Your task to perform on an android device: Go to Amazon Image 0: 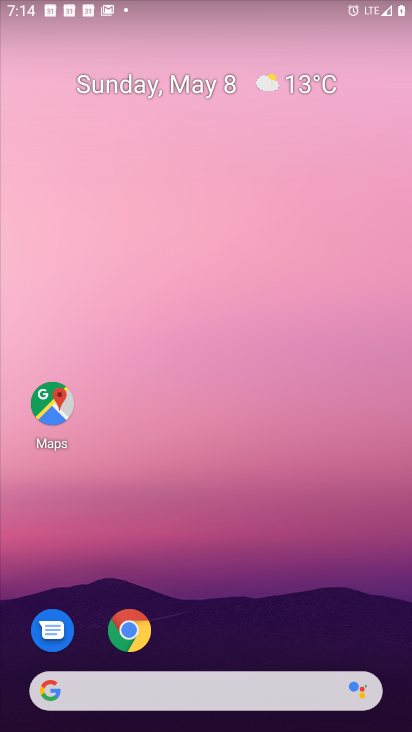
Step 0: click (132, 630)
Your task to perform on an android device: Go to Amazon Image 1: 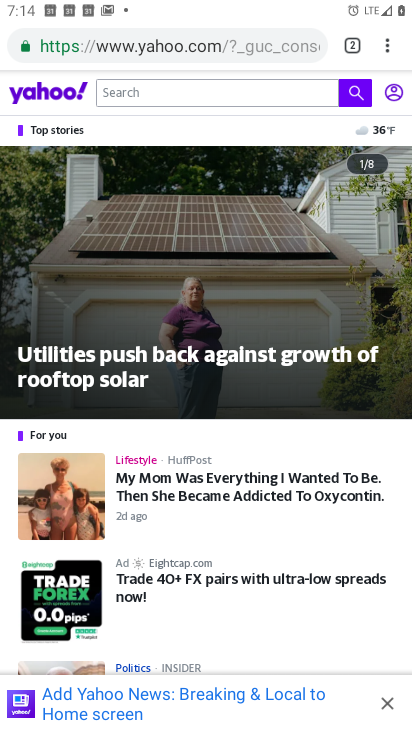
Step 1: click (390, 44)
Your task to perform on an android device: Go to Amazon Image 2: 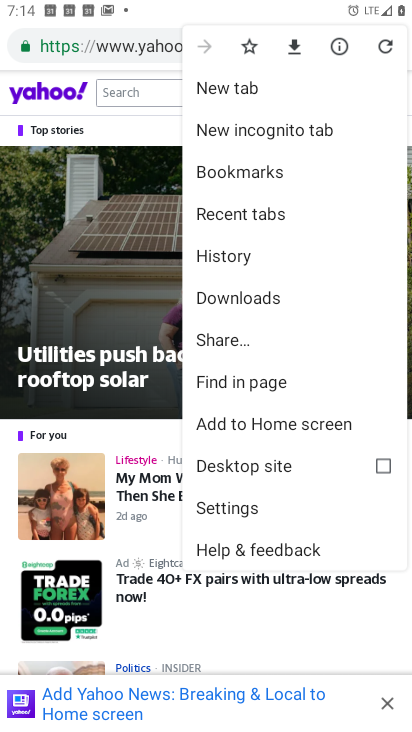
Step 2: click (239, 83)
Your task to perform on an android device: Go to Amazon Image 3: 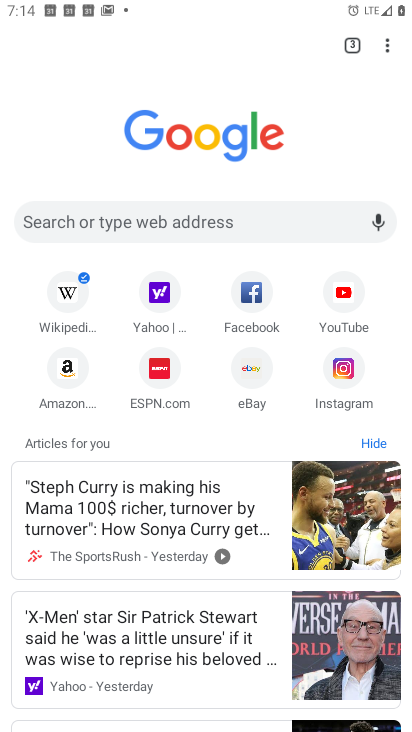
Step 3: click (62, 366)
Your task to perform on an android device: Go to Amazon Image 4: 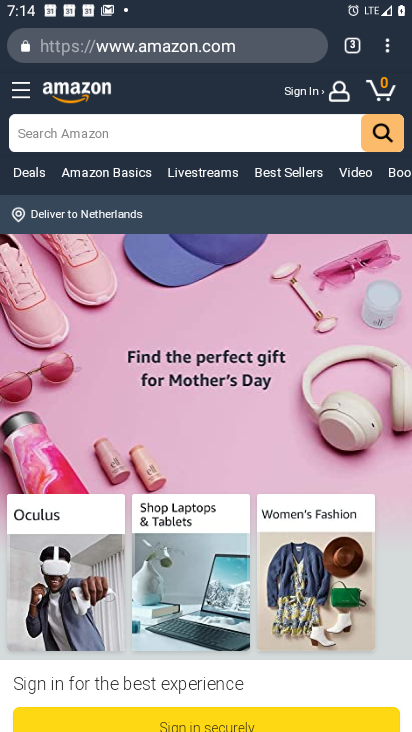
Step 4: task complete